Your task to perform on an android device: Go to internet settings Image 0: 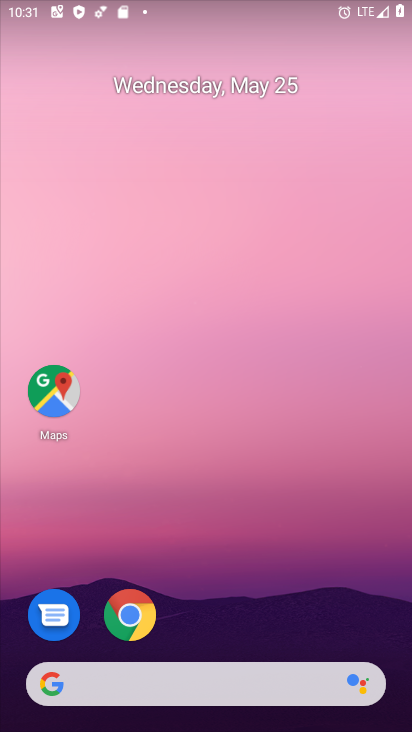
Step 0: drag from (286, 576) to (257, 55)
Your task to perform on an android device: Go to internet settings Image 1: 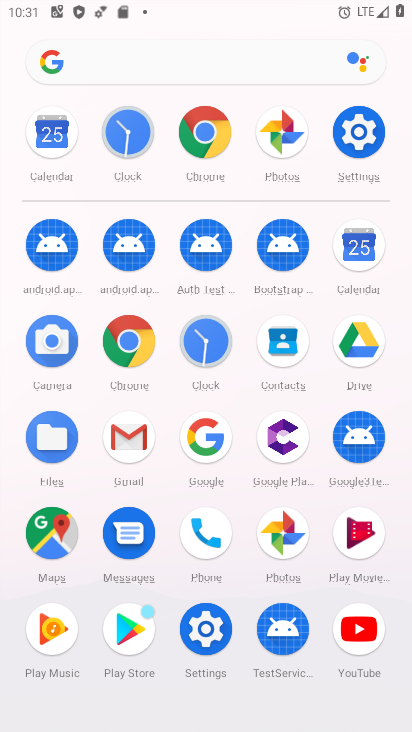
Step 1: click (352, 135)
Your task to perform on an android device: Go to internet settings Image 2: 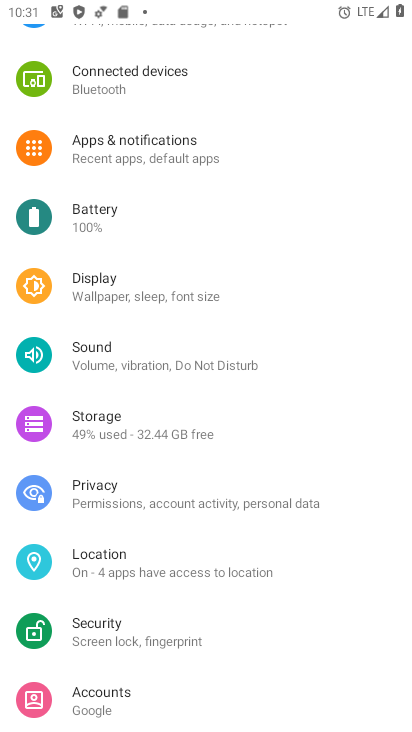
Step 2: drag from (252, 259) to (273, 492)
Your task to perform on an android device: Go to internet settings Image 3: 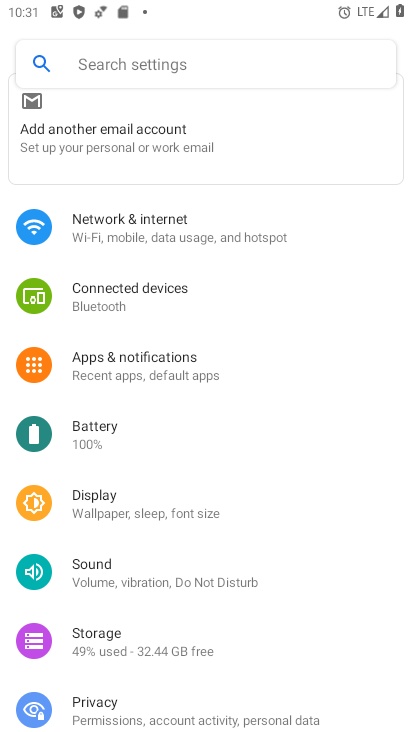
Step 3: click (214, 227)
Your task to perform on an android device: Go to internet settings Image 4: 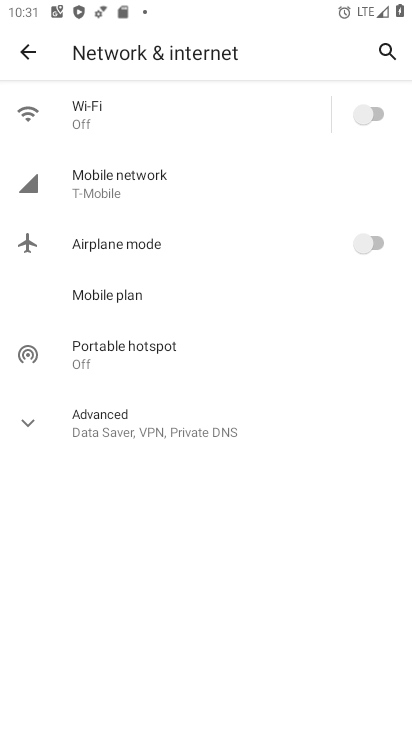
Step 4: task complete